Your task to perform on an android device: What's the weather? Image 0: 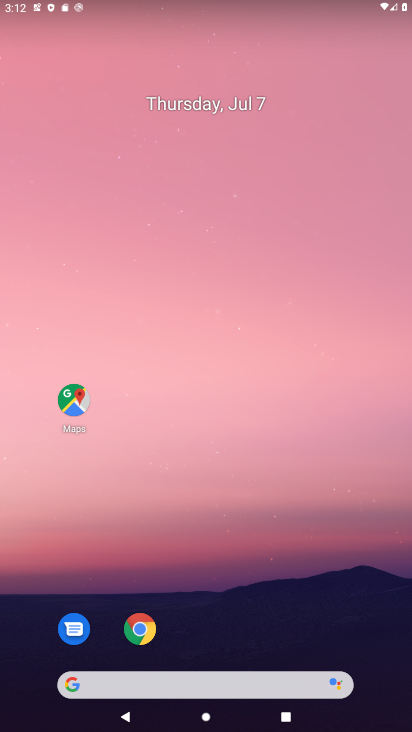
Step 0: drag from (249, 626) to (207, 114)
Your task to perform on an android device: What's the weather? Image 1: 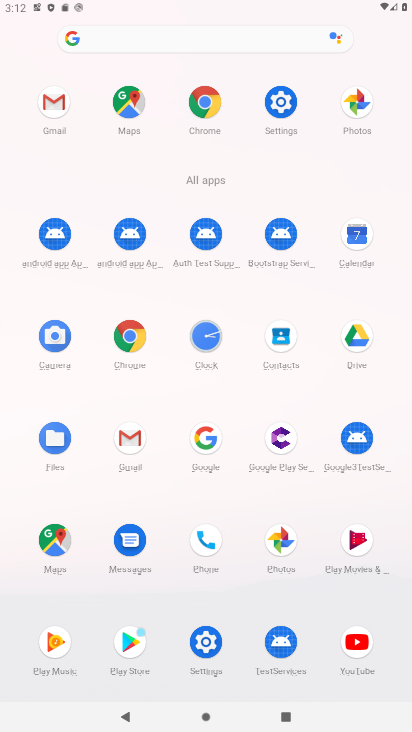
Step 1: click (203, 96)
Your task to perform on an android device: What's the weather? Image 2: 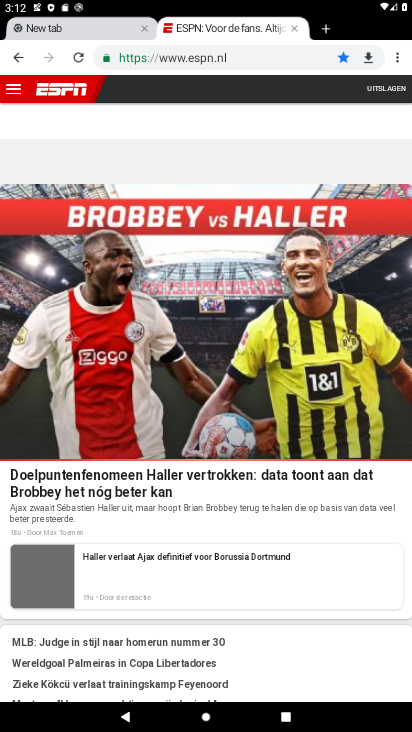
Step 2: click (327, 21)
Your task to perform on an android device: What's the weather? Image 3: 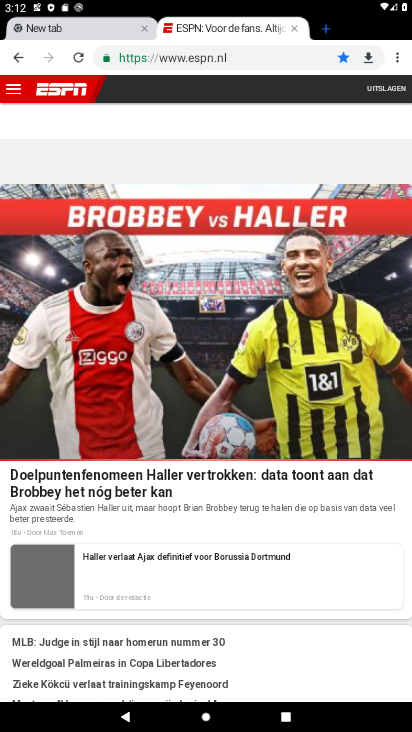
Step 3: click (327, 29)
Your task to perform on an android device: What's the weather? Image 4: 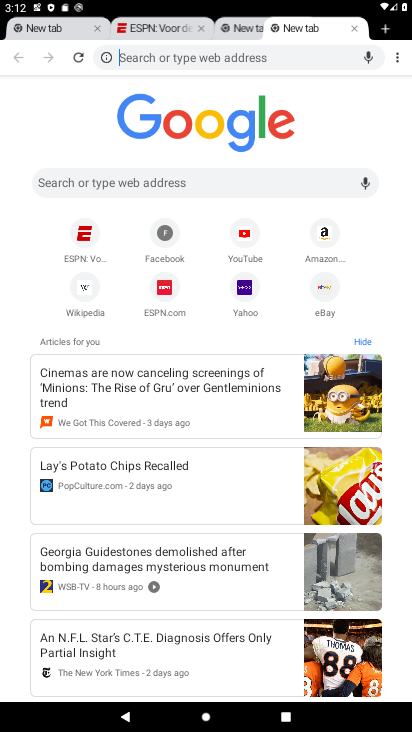
Step 4: click (135, 173)
Your task to perform on an android device: What's the weather? Image 5: 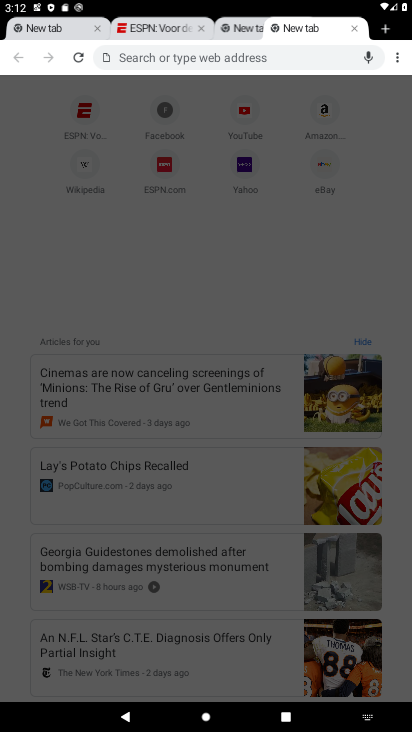
Step 5: type "What's the weather "
Your task to perform on an android device: What's the weather? Image 6: 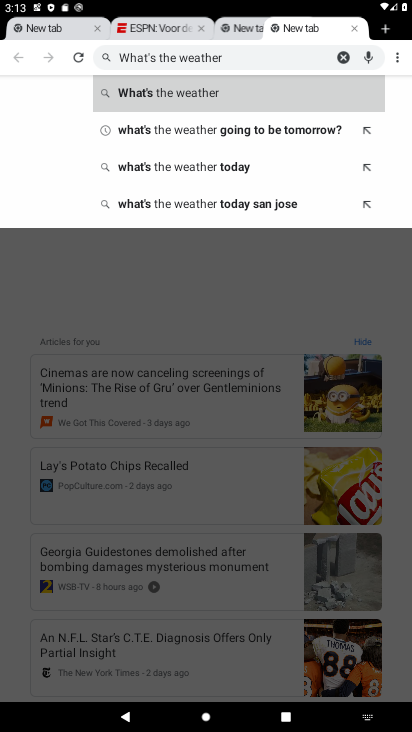
Step 6: click (154, 104)
Your task to perform on an android device: What's the weather? Image 7: 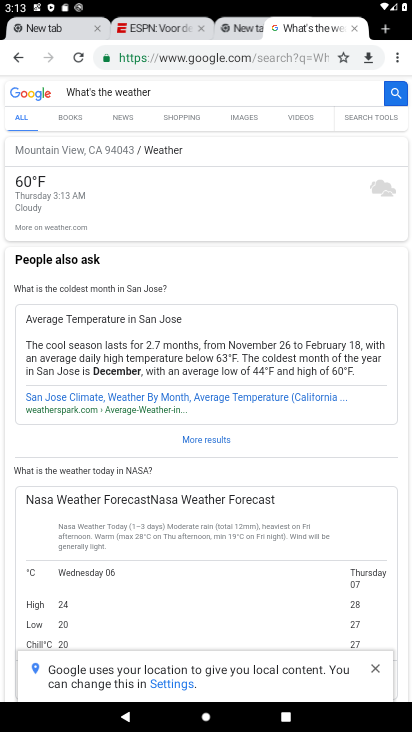
Step 7: task complete